Your task to perform on an android device: toggle improve location accuracy Image 0: 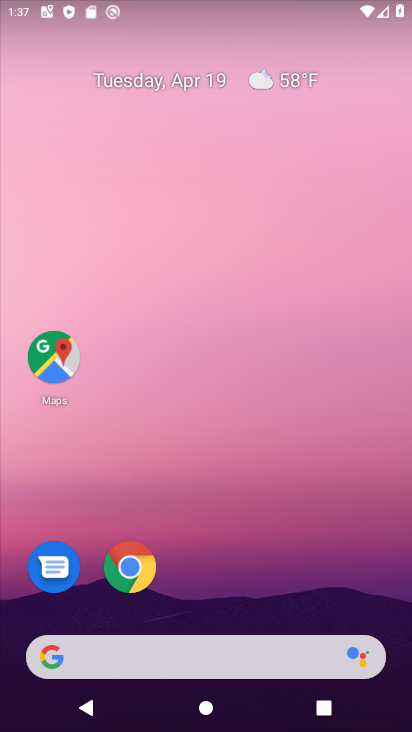
Step 0: drag from (198, 561) to (228, 124)
Your task to perform on an android device: toggle improve location accuracy Image 1: 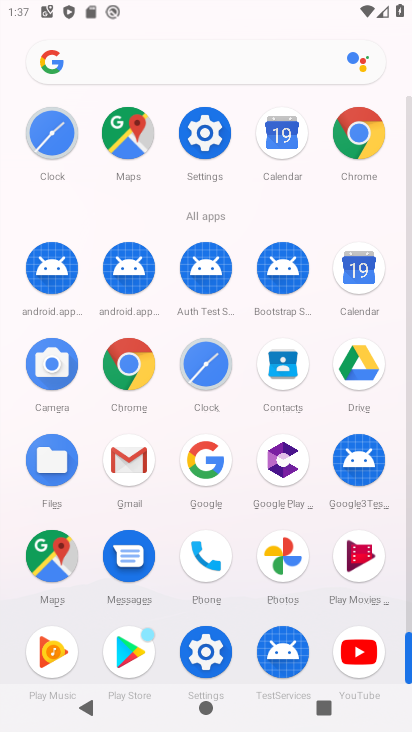
Step 1: click (203, 143)
Your task to perform on an android device: toggle improve location accuracy Image 2: 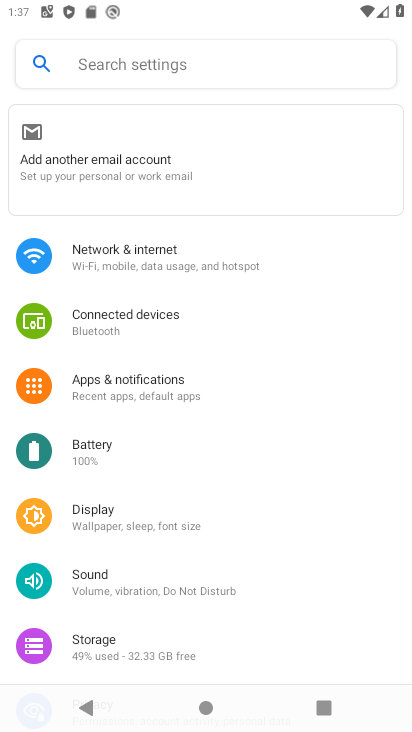
Step 2: drag from (118, 606) to (148, 297)
Your task to perform on an android device: toggle improve location accuracy Image 3: 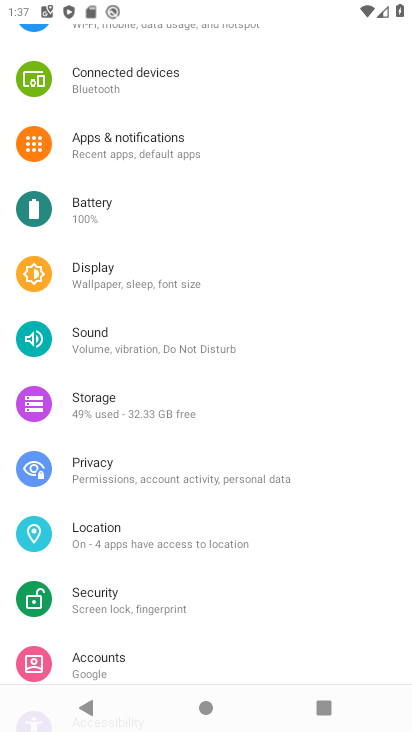
Step 3: click (63, 540)
Your task to perform on an android device: toggle improve location accuracy Image 4: 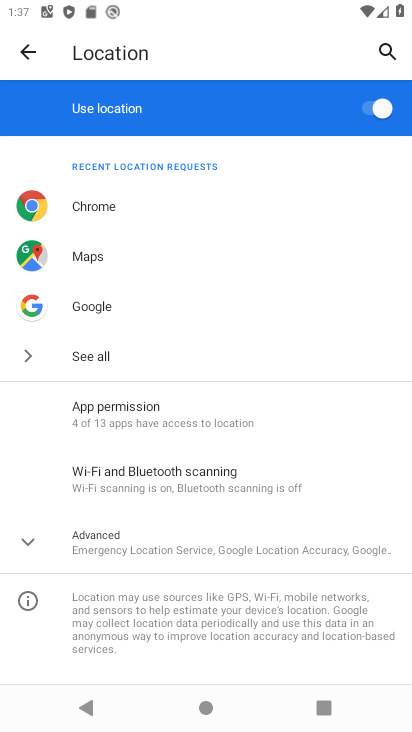
Step 4: click (25, 540)
Your task to perform on an android device: toggle improve location accuracy Image 5: 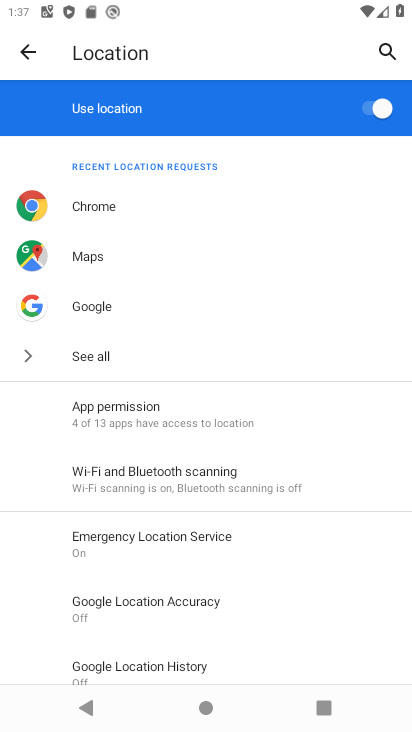
Step 5: click (149, 601)
Your task to perform on an android device: toggle improve location accuracy Image 6: 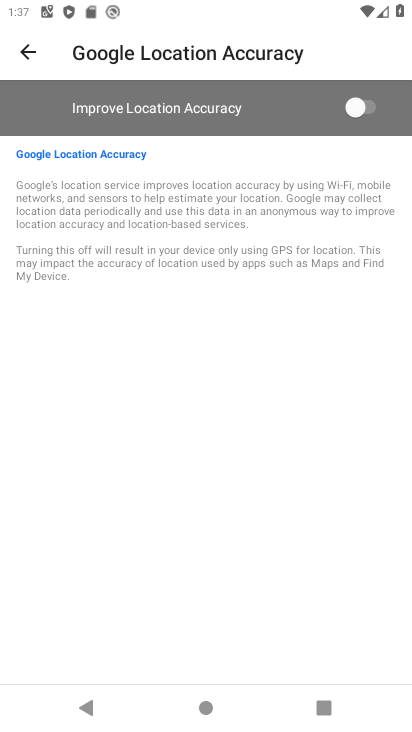
Step 6: click (362, 103)
Your task to perform on an android device: toggle improve location accuracy Image 7: 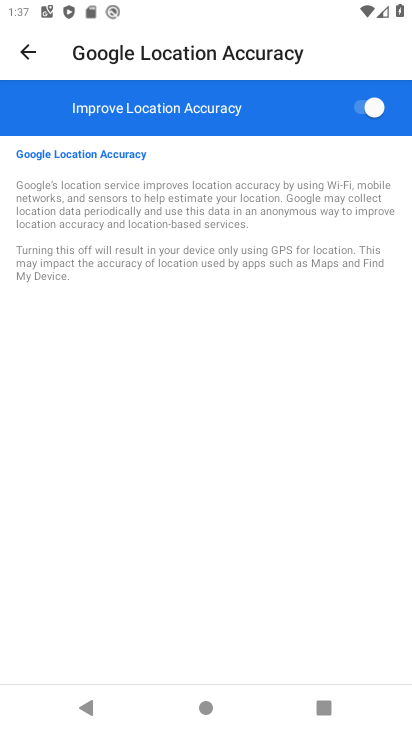
Step 7: task complete